Your task to perform on an android device: Search for the new nintendo switch on Walmart. Image 0: 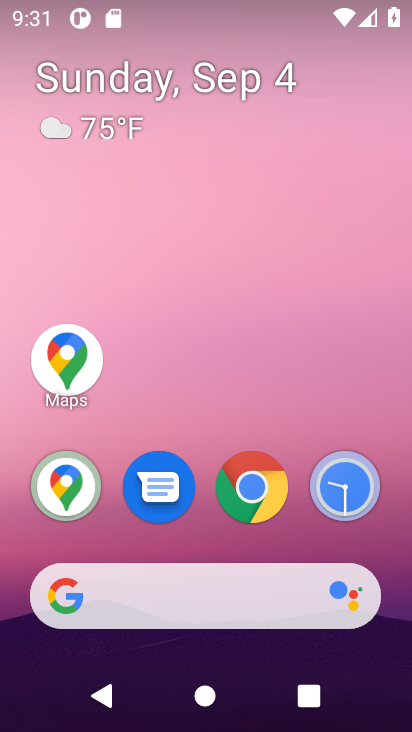
Step 0: click (245, 483)
Your task to perform on an android device: Search for the new nintendo switch on Walmart. Image 1: 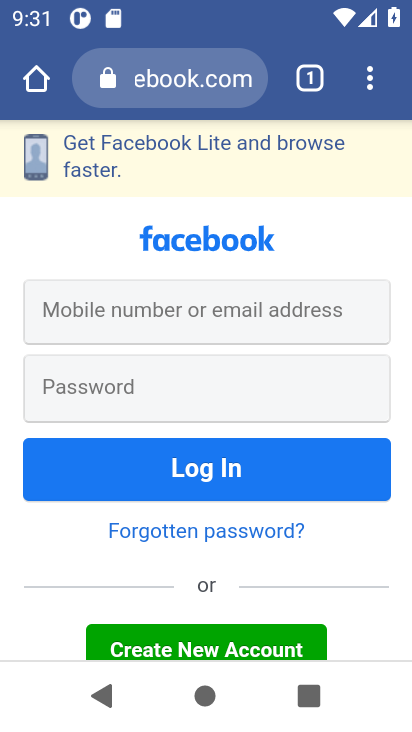
Step 1: click (301, 74)
Your task to perform on an android device: Search for the new nintendo switch on Walmart. Image 2: 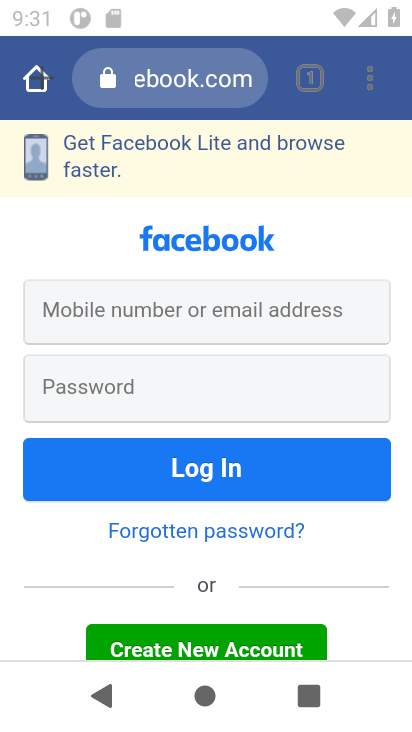
Step 2: task complete